Your task to perform on an android device: turn off priority inbox in the gmail app Image 0: 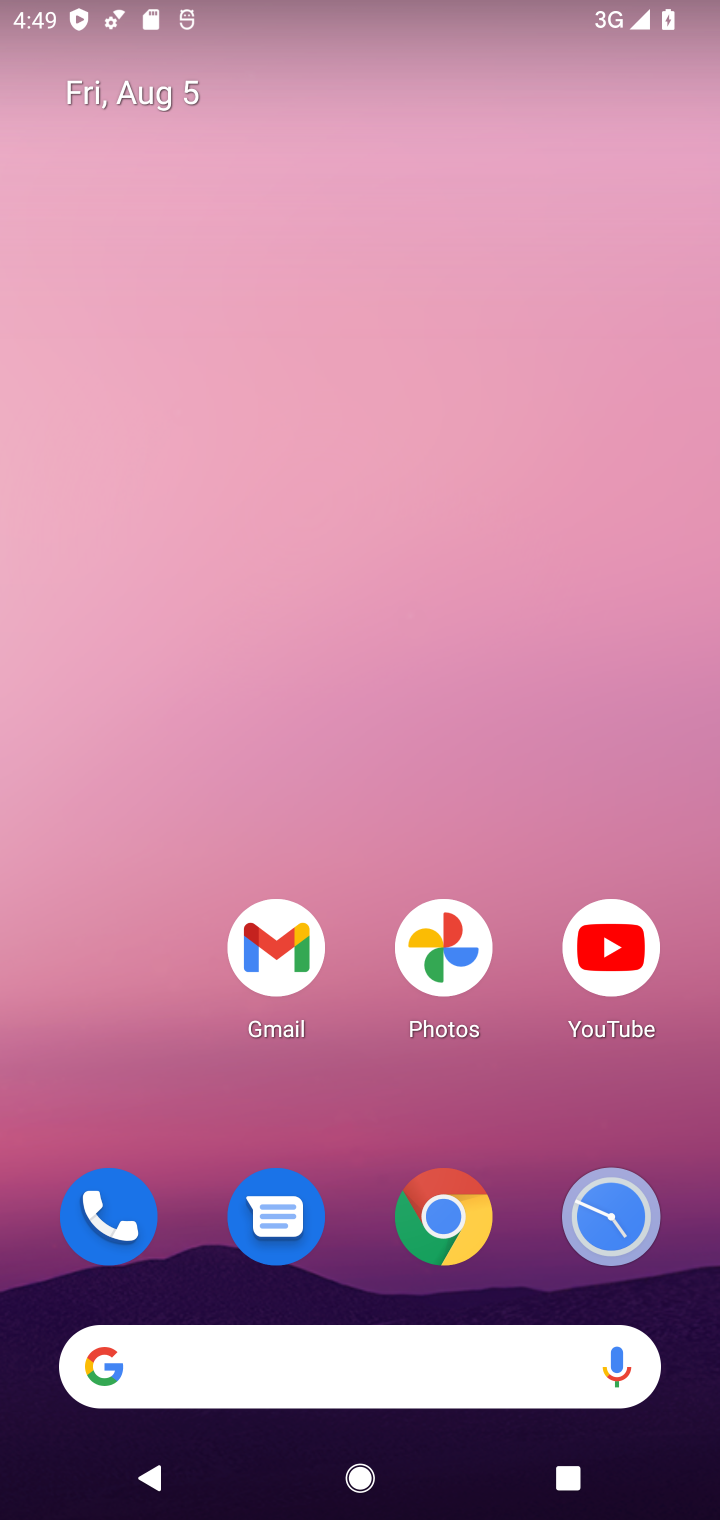
Step 0: click (305, 937)
Your task to perform on an android device: turn off priority inbox in the gmail app Image 1: 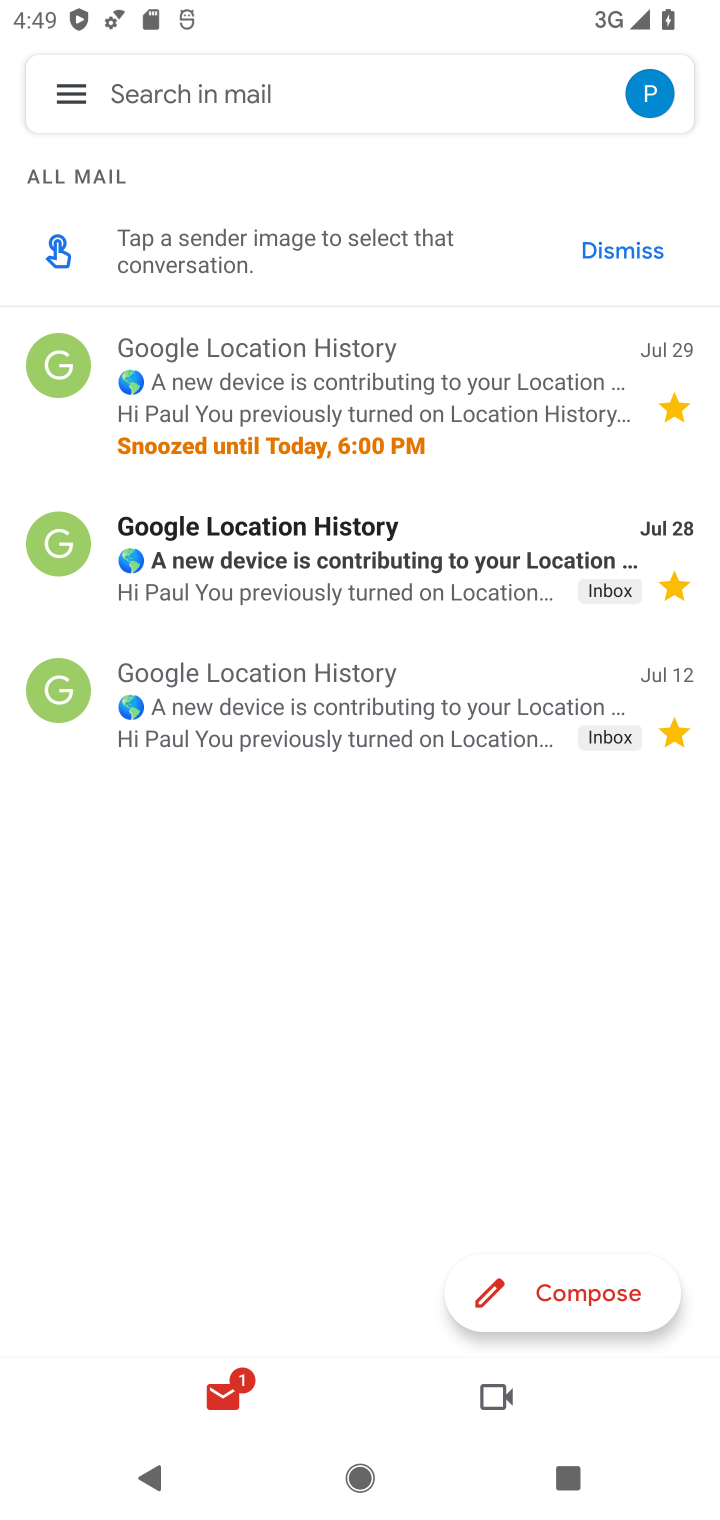
Step 1: click (75, 76)
Your task to perform on an android device: turn off priority inbox in the gmail app Image 2: 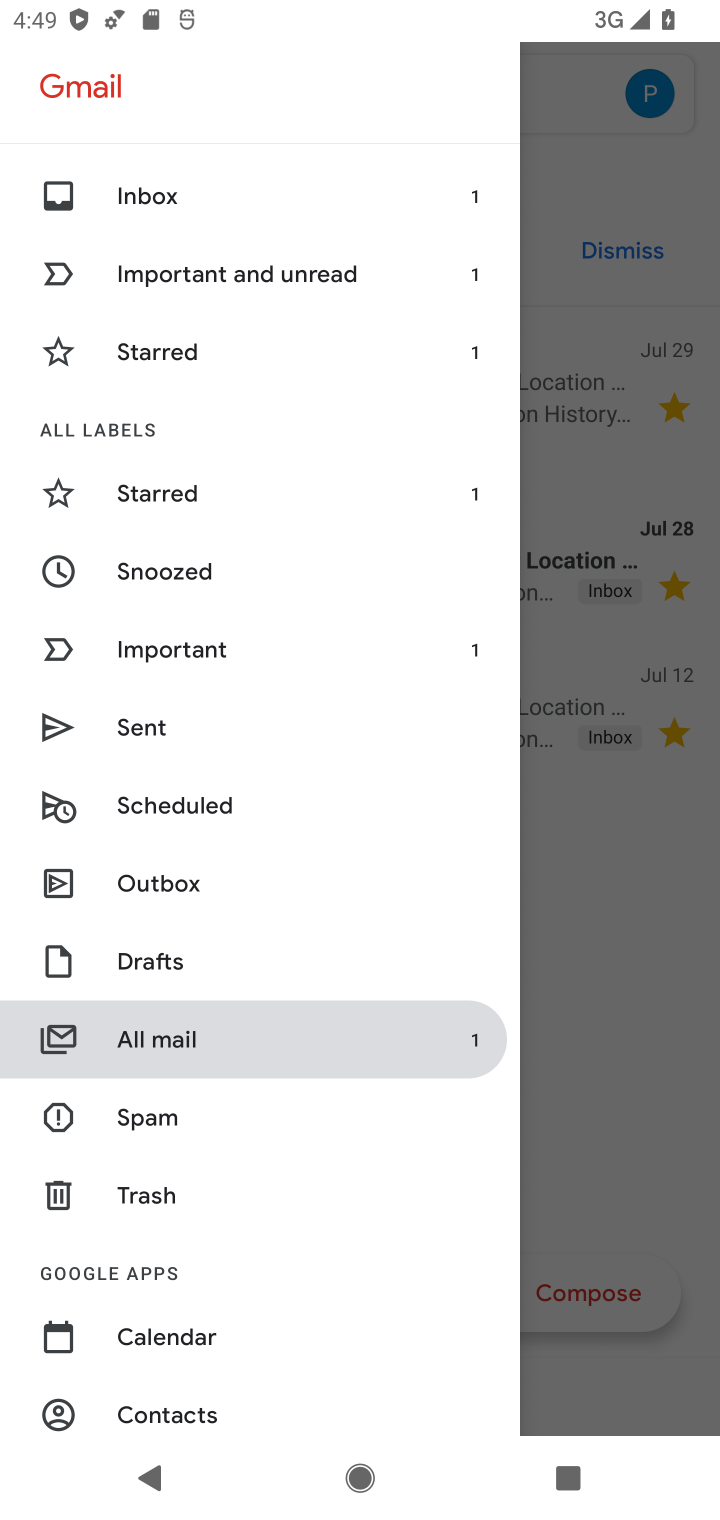
Step 2: drag from (146, 1021) to (151, 697)
Your task to perform on an android device: turn off priority inbox in the gmail app Image 3: 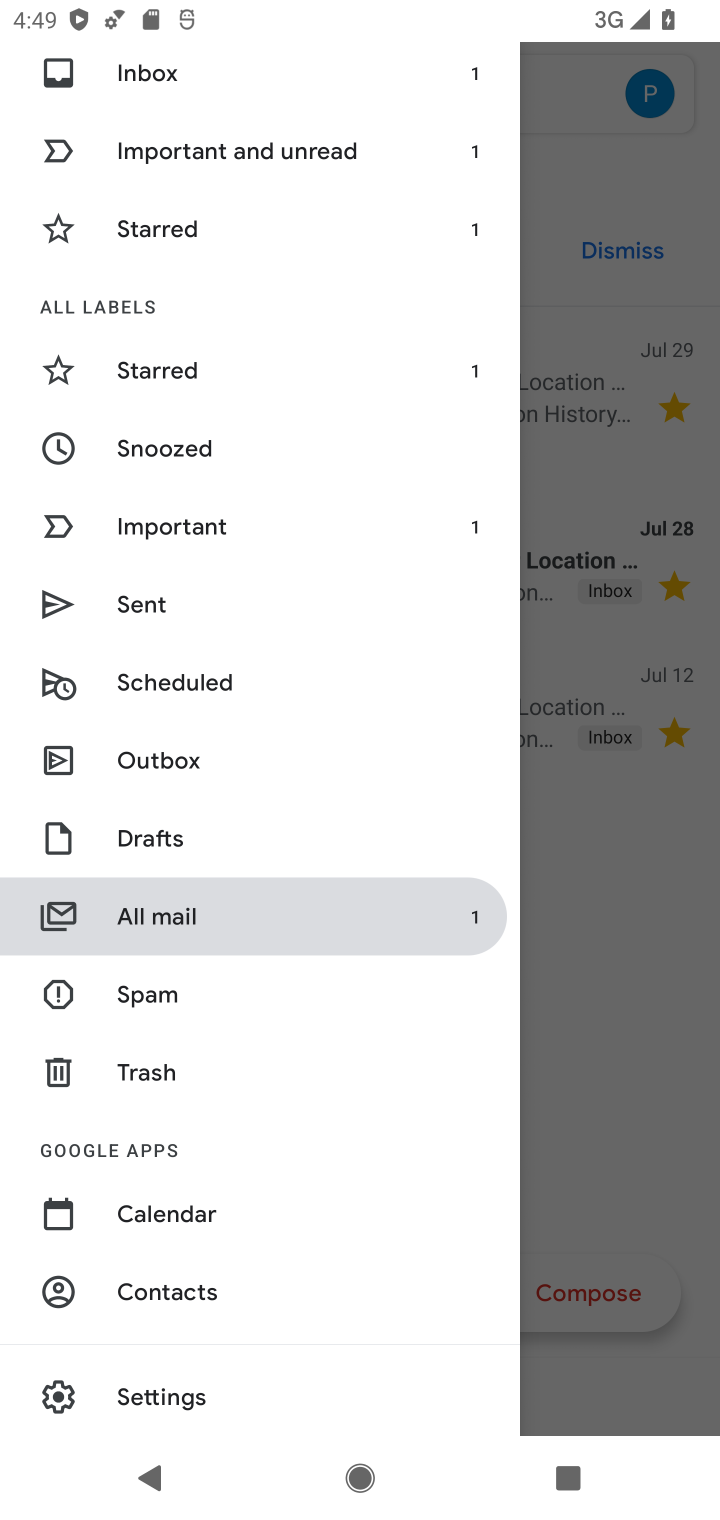
Step 3: click (188, 1395)
Your task to perform on an android device: turn off priority inbox in the gmail app Image 4: 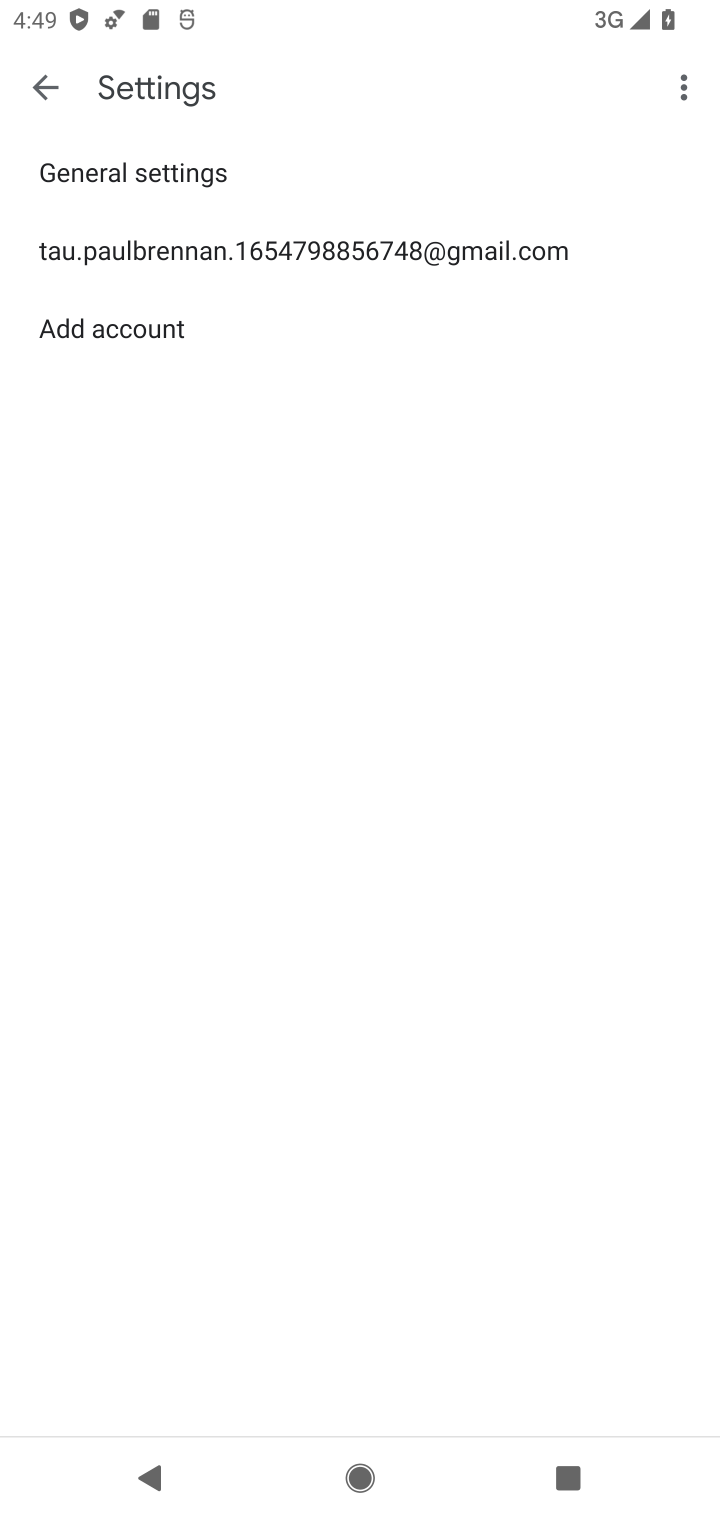
Step 4: click (295, 244)
Your task to perform on an android device: turn off priority inbox in the gmail app Image 5: 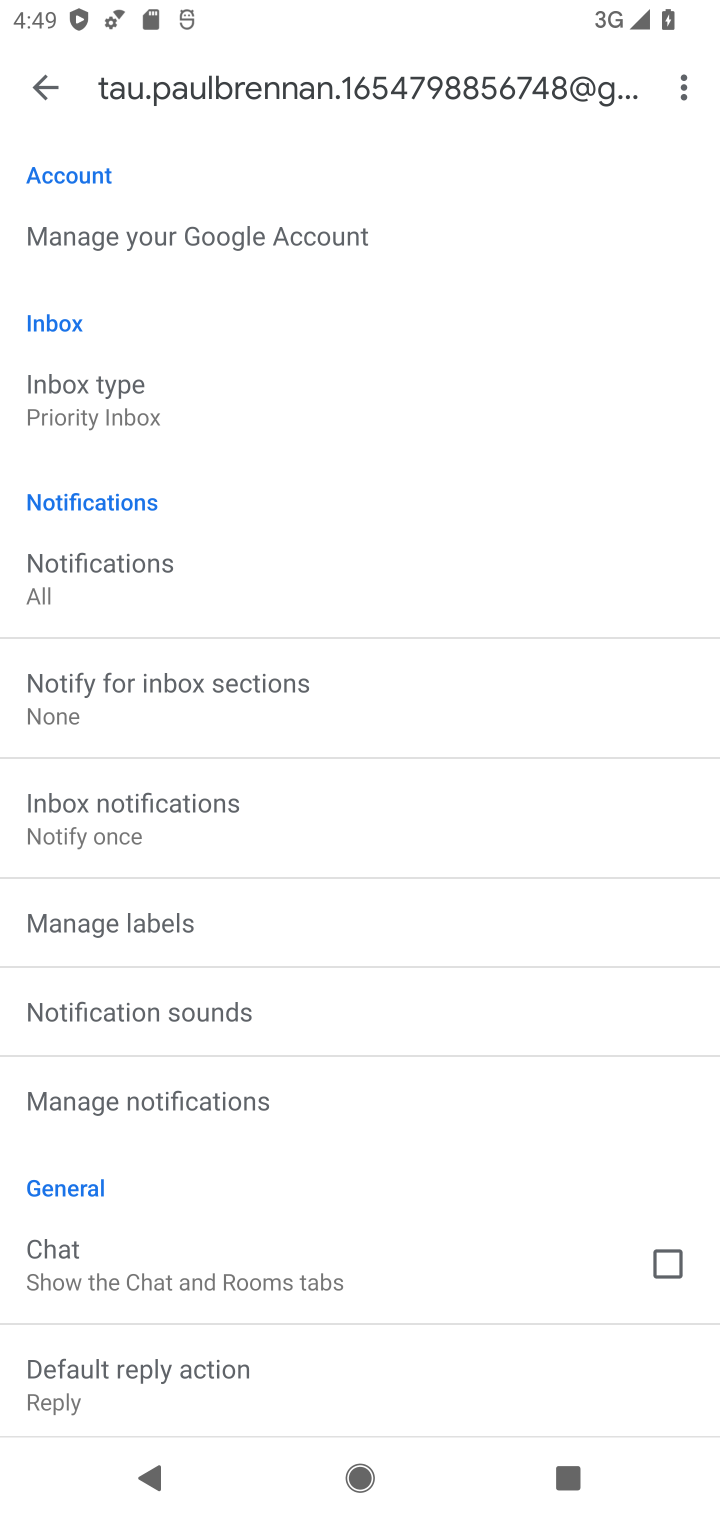
Step 5: click (64, 429)
Your task to perform on an android device: turn off priority inbox in the gmail app Image 6: 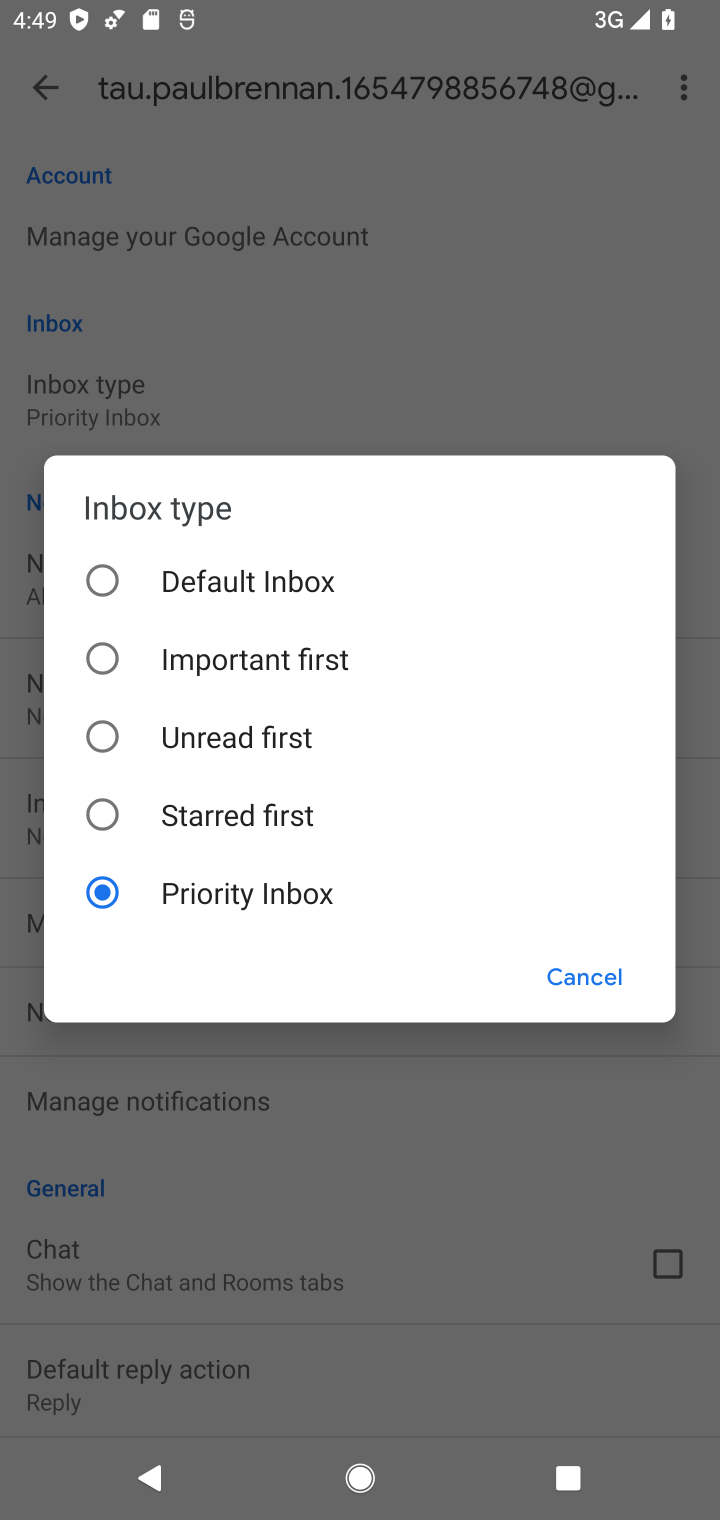
Step 6: click (214, 576)
Your task to perform on an android device: turn off priority inbox in the gmail app Image 7: 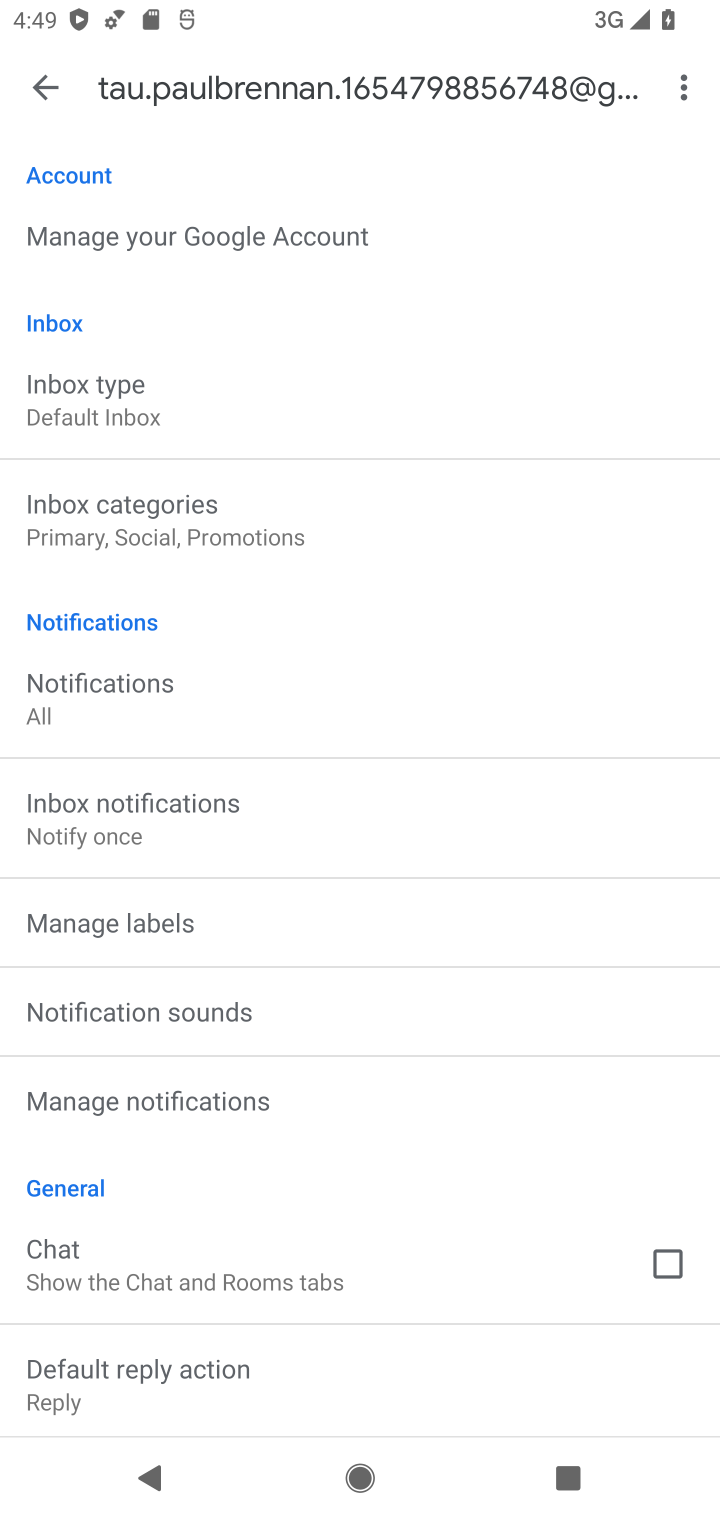
Step 7: task complete